Your task to perform on an android device: change timer sound Image 0: 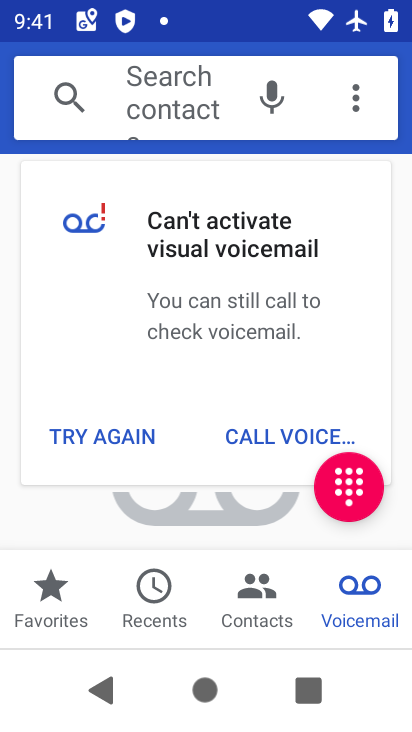
Step 0: press home button
Your task to perform on an android device: change timer sound Image 1: 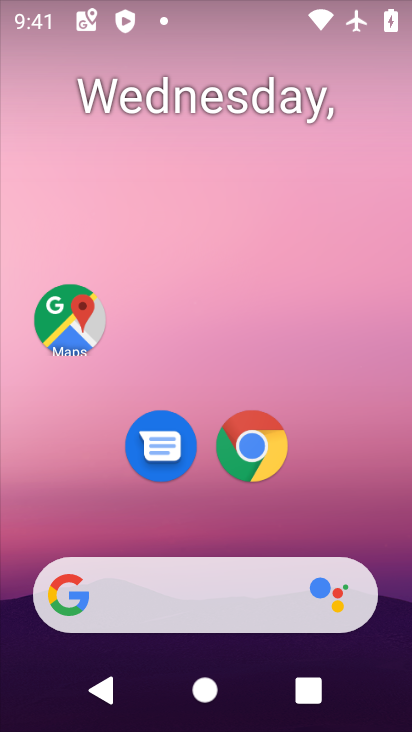
Step 1: drag from (175, 585) to (275, 19)
Your task to perform on an android device: change timer sound Image 2: 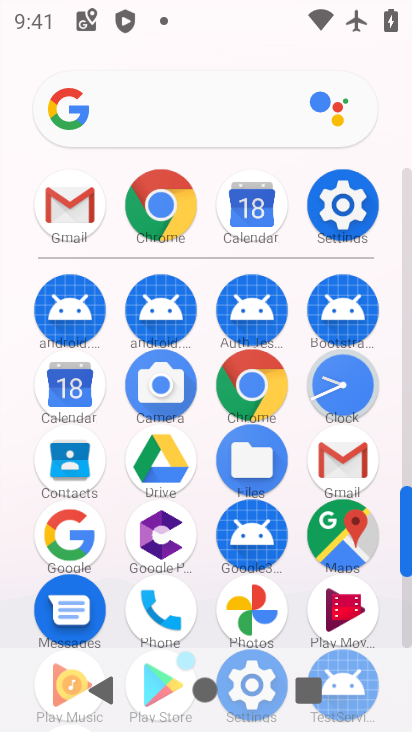
Step 2: click (347, 382)
Your task to perform on an android device: change timer sound Image 3: 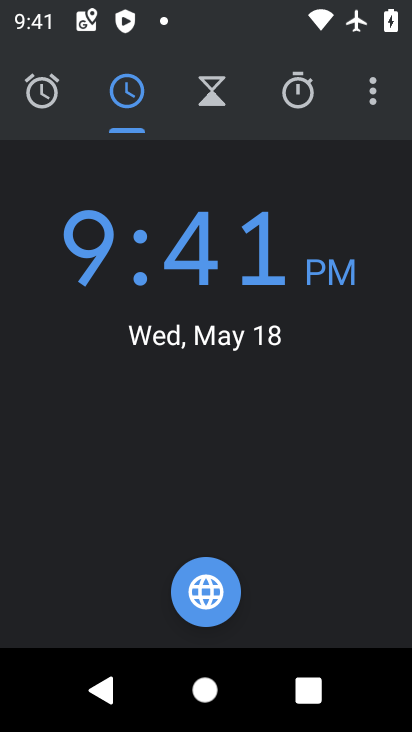
Step 3: click (372, 98)
Your task to perform on an android device: change timer sound Image 4: 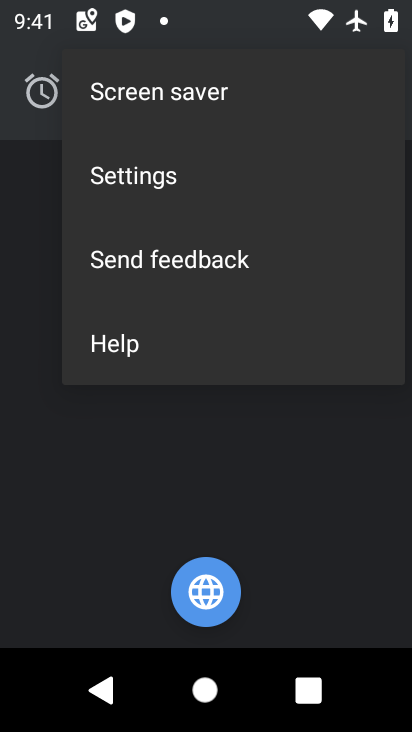
Step 4: click (172, 178)
Your task to perform on an android device: change timer sound Image 5: 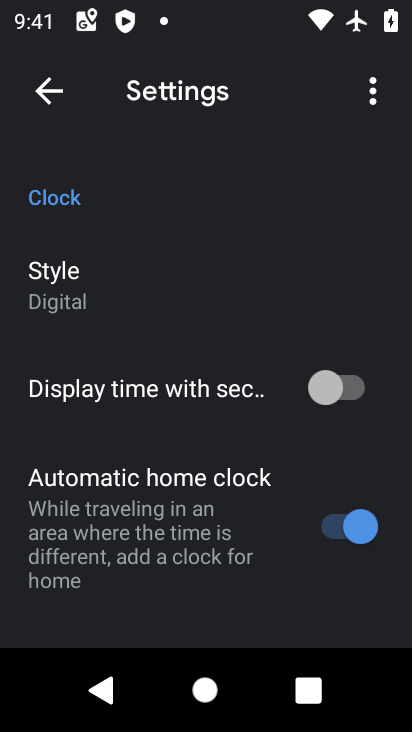
Step 5: drag from (193, 623) to (256, 172)
Your task to perform on an android device: change timer sound Image 6: 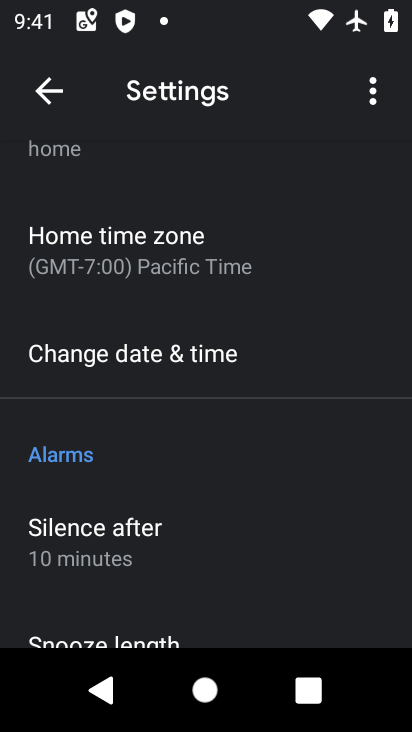
Step 6: drag from (237, 590) to (322, 180)
Your task to perform on an android device: change timer sound Image 7: 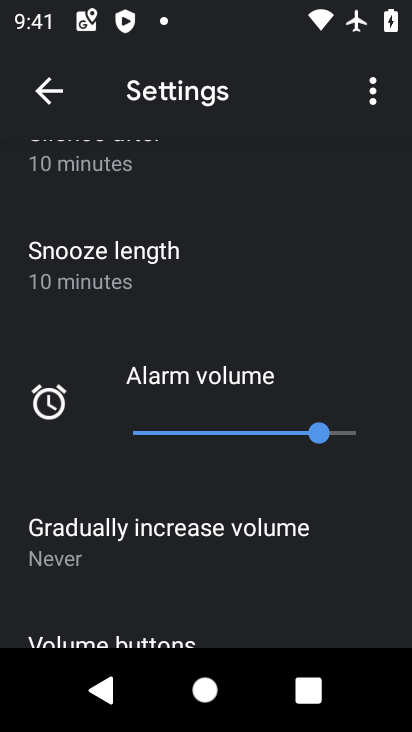
Step 7: drag from (194, 582) to (265, 237)
Your task to perform on an android device: change timer sound Image 8: 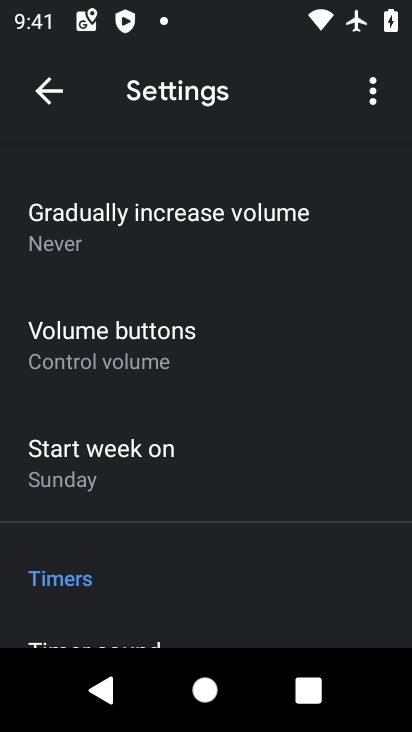
Step 8: drag from (147, 546) to (198, 183)
Your task to perform on an android device: change timer sound Image 9: 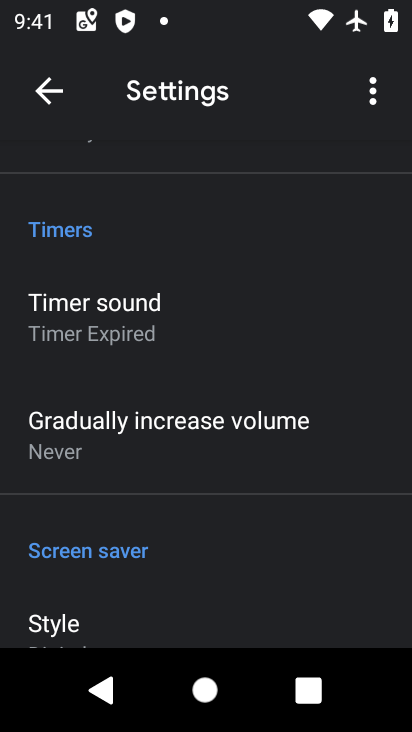
Step 9: click (124, 322)
Your task to perform on an android device: change timer sound Image 10: 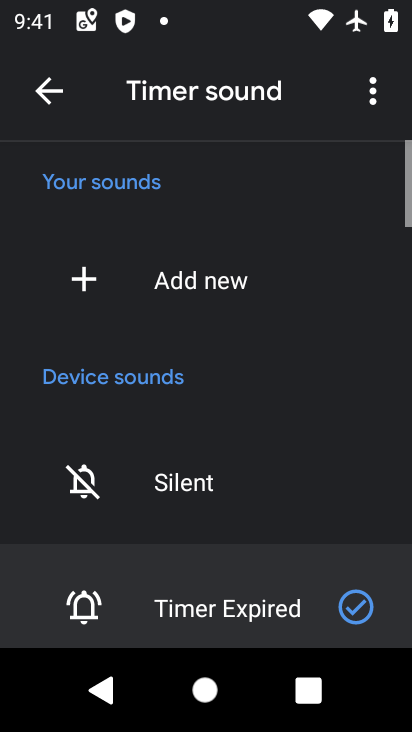
Step 10: drag from (226, 473) to (292, 262)
Your task to perform on an android device: change timer sound Image 11: 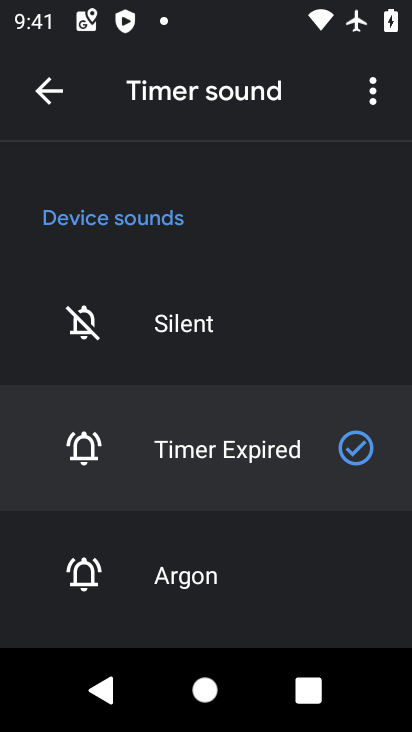
Step 11: click (228, 336)
Your task to perform on an android device: change timer sound Image 12: 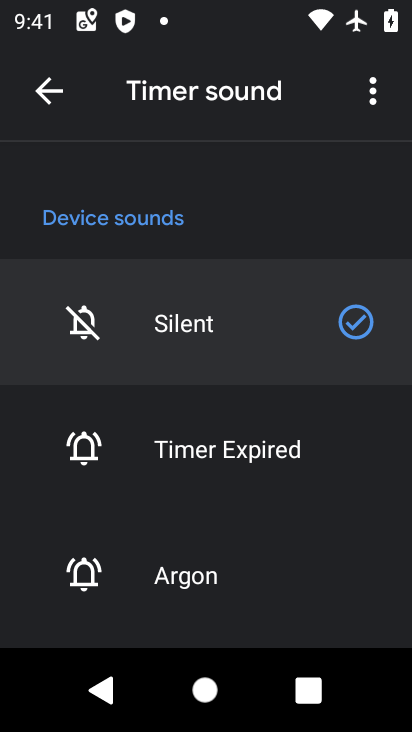
Step 12: task complete